Your task to perform on an android device: toggle priority inbox in the gmail app Image 0: 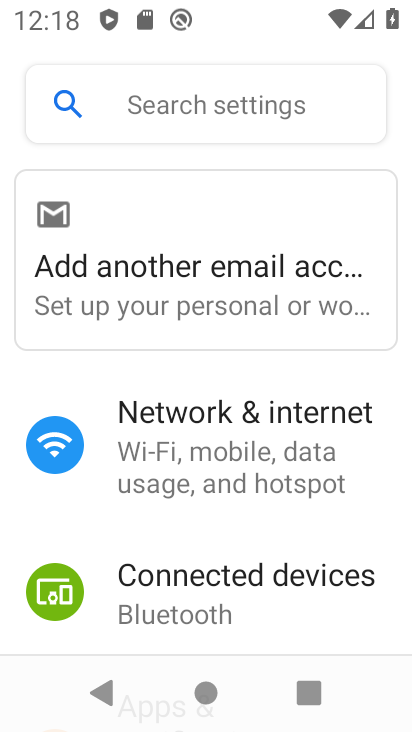
Step 0: press home button
Your task to perform on an android device: toggle priority inbox in the gmail app Image 1: 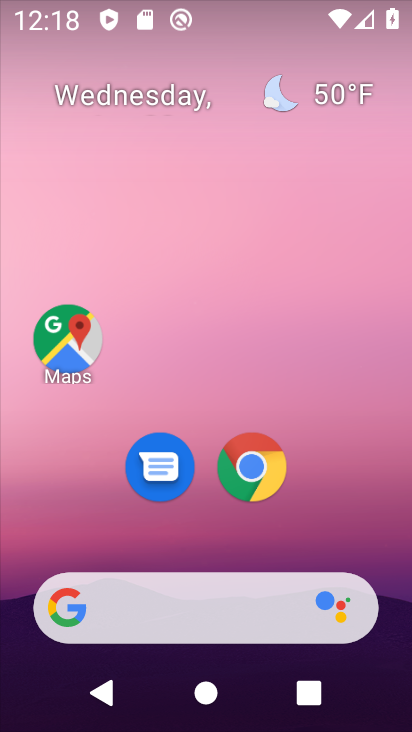
Step 1: drag from (209, 394) to (224, 38)
Your task to perform on an android device: toggle priority inbox in the gmail app Image 2: 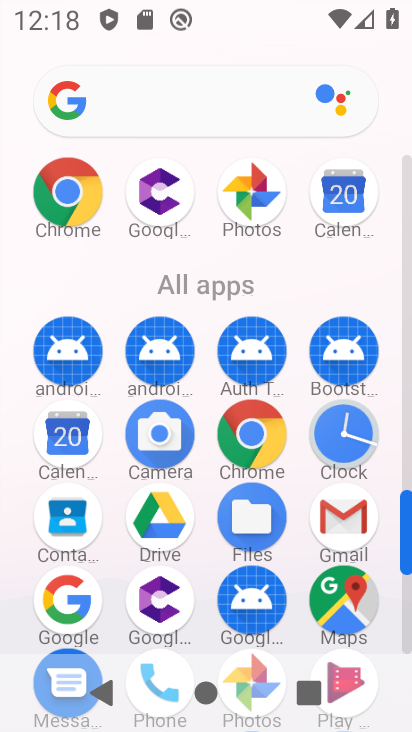
Step 2: click (341, 512)
Your task to perform on an android device: toggle priority inbox in the gmail app Image 3: 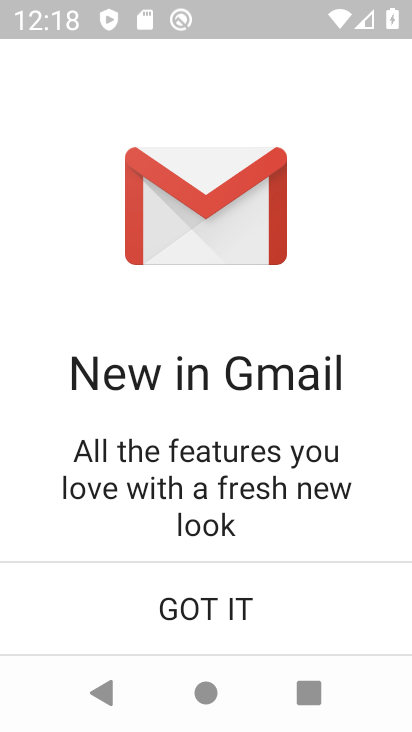
Step 3: click (235, 600)
Your task to perform on an android device: toggle priority inbox in the gmail app Image 4: 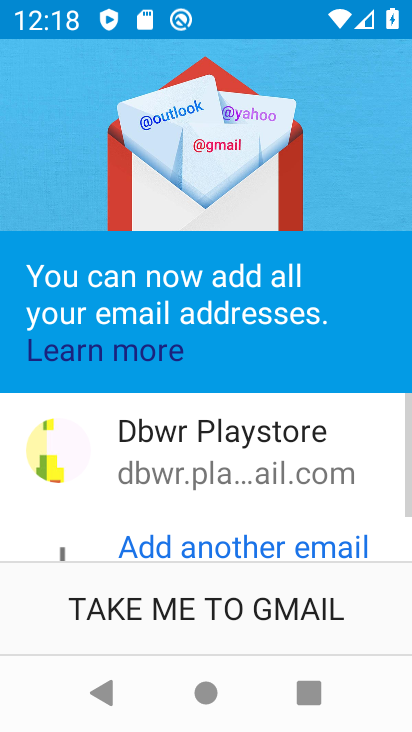
Step 4: click (235, 600)
Your task to perform on an android device: toggle priority inbox in the gmail app Image 5: 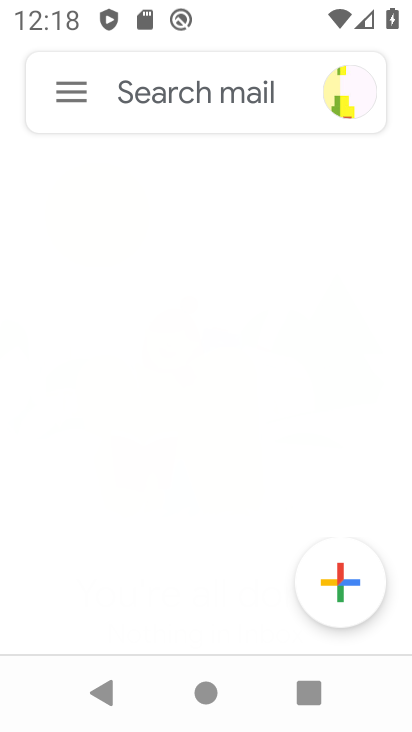
Step 5: click (71, 98)
Your task to perform on an android device: toggle priority inbox in the gmail app Image 6: 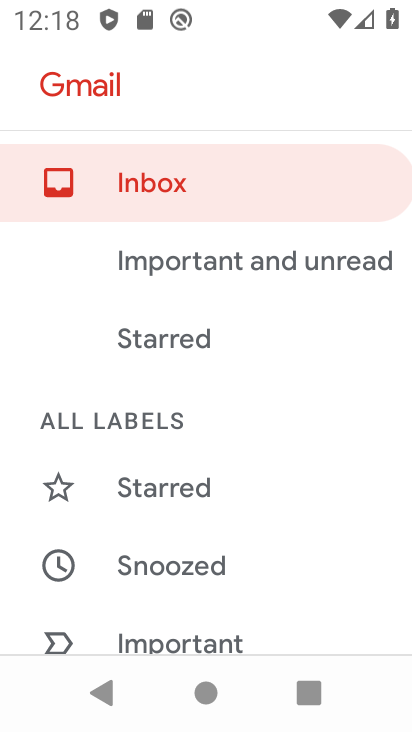
Step 6: drag from (139, 588) to (197, 88)
Your task to perform on an android device: toggle priority inbox in the gmail app Image 7: 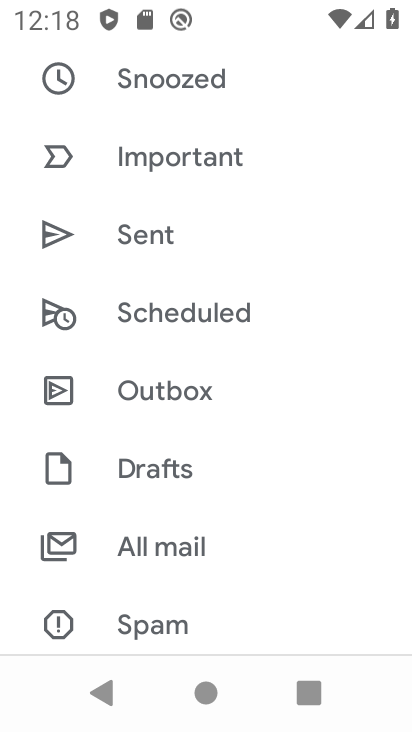
Step 7: drag from (241, 525) to (269, 137)
Your task to perform on an android device: toggle priority inbox in the gmail app Image 8: 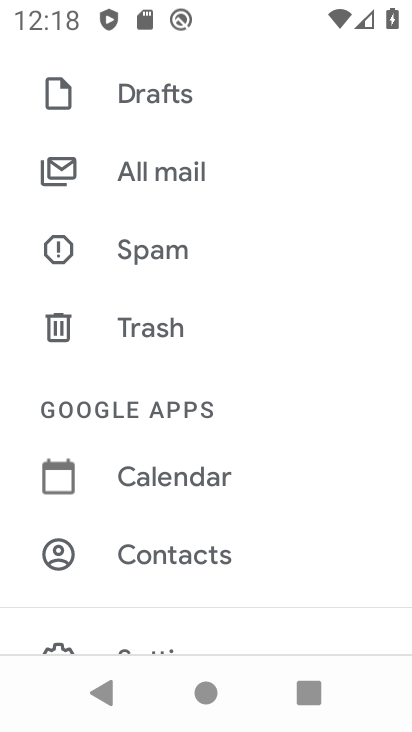
Step 8: drag from (171, 452) to (198, 207)
Your task to perform on an android device: toggle priority inbox in the gmail app Image 9: 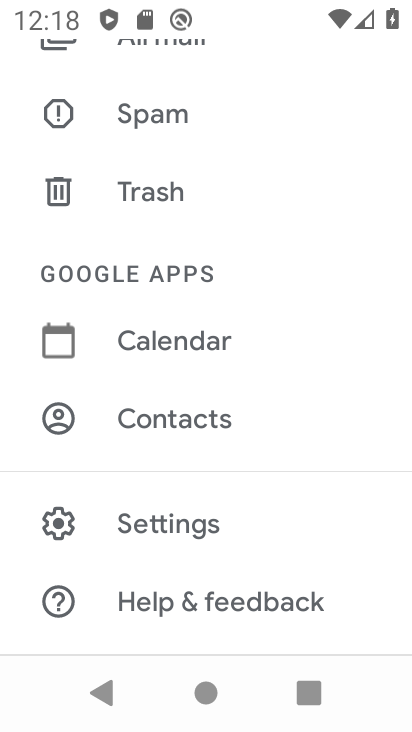
Step 9: click (191, 518)
Your task to perform on an android device: toggle priority inbox in the gmail app Image 10: 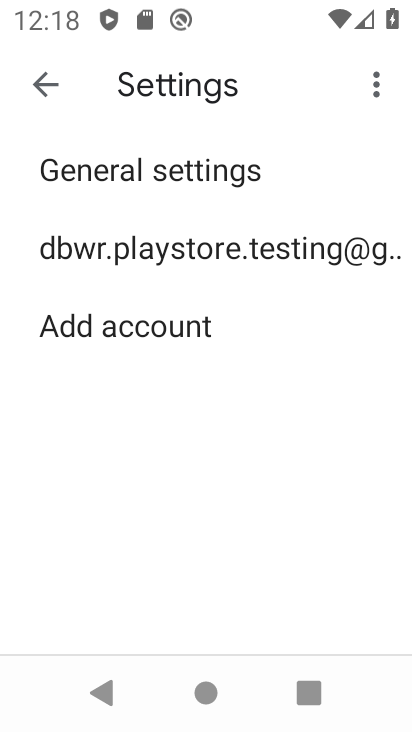
Step 10: click (141, 244)
Your task to perform on an android device: toggle priority inbox in the gmail app Image 11: 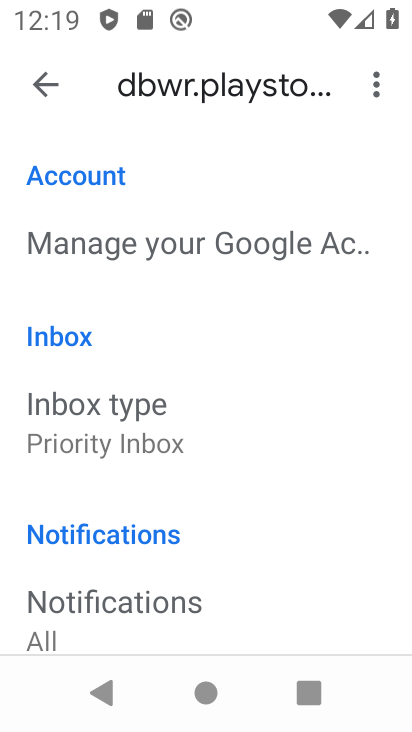
Step 11: click (162, 431)
Your task to perform on an android device: toggle priority inbox in the gmail app Image 12: 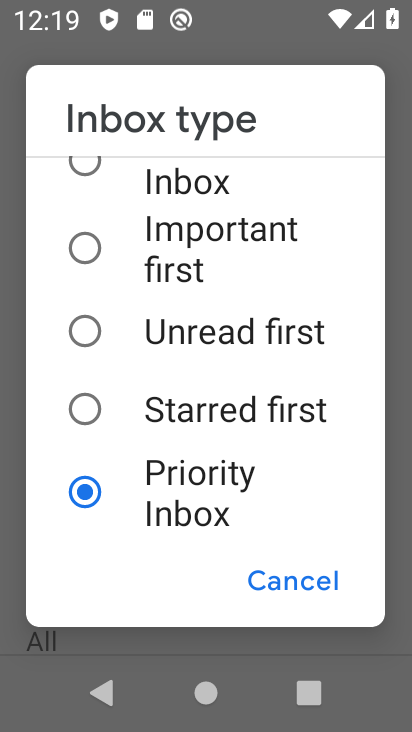
Step 12: click (286, 581)
Your task to perform on an android device: toggle priority inbox in the gmail app Image 13: 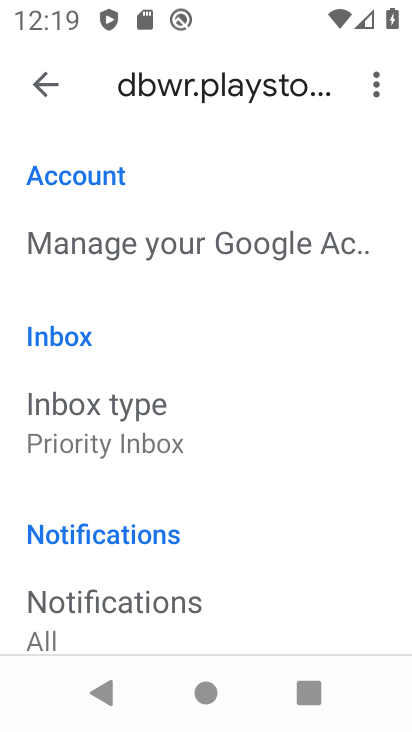
Step 13: task complete